Your task to perform on an android device: Open location settings Image 0: 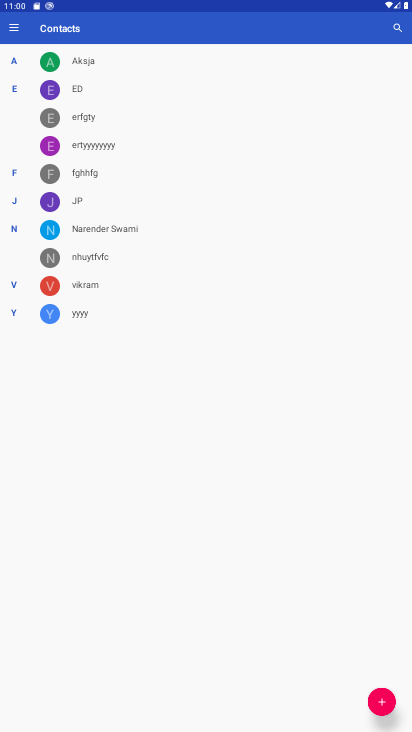
Step 0: press home button
Your task to perform on an android device: Open location settings Image 1: 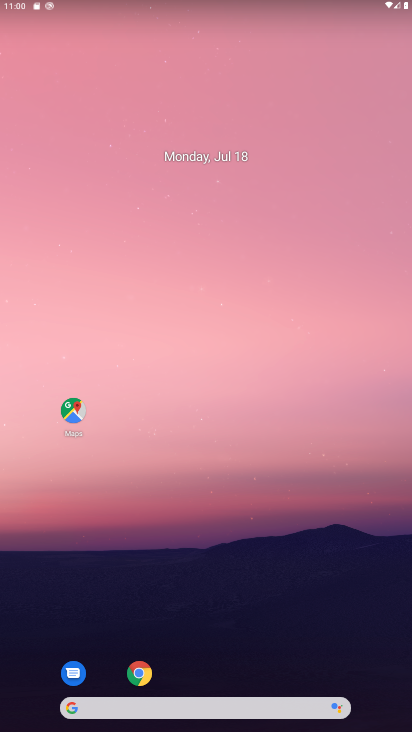
Step 1: drag from (202, 645) to (202, 152)
Your task to perform on an android device: Open location settings Image 2: 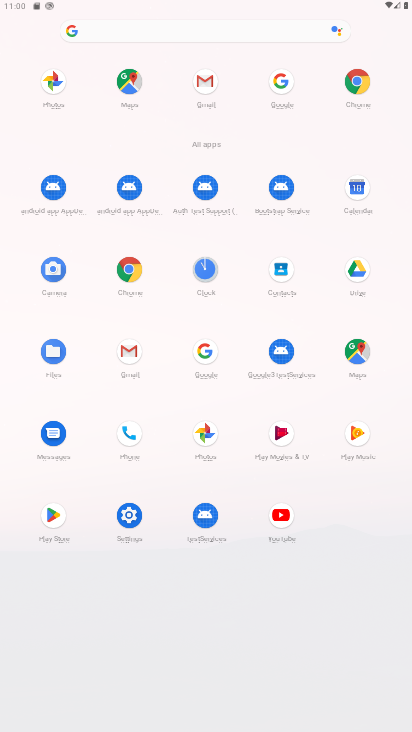
Step 2: click (123, 505)
Your task to perform on an android device: Open location settings Image 3: 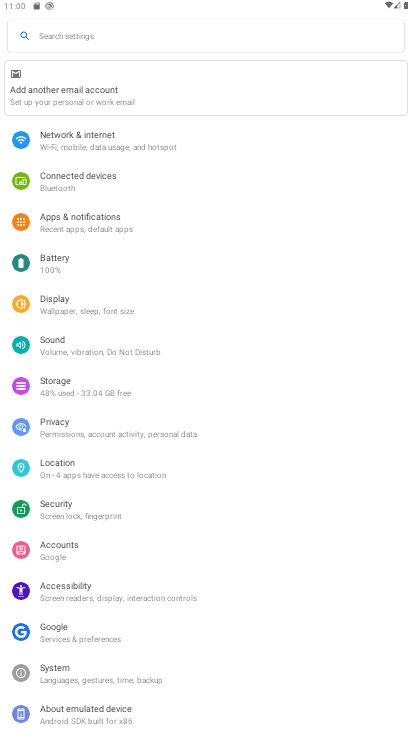
Step 3: click (92, 475)
Your task to perform on an android device: Open location settings Image 4: 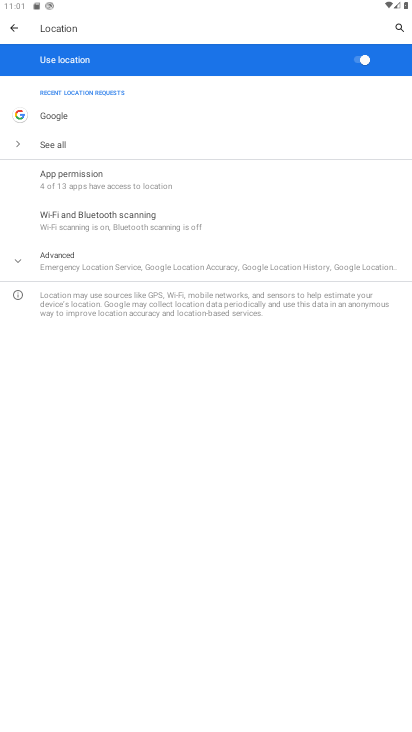
Step 4: task complete